Your task to perform on an android device: Go to Wikipedia Image 0: 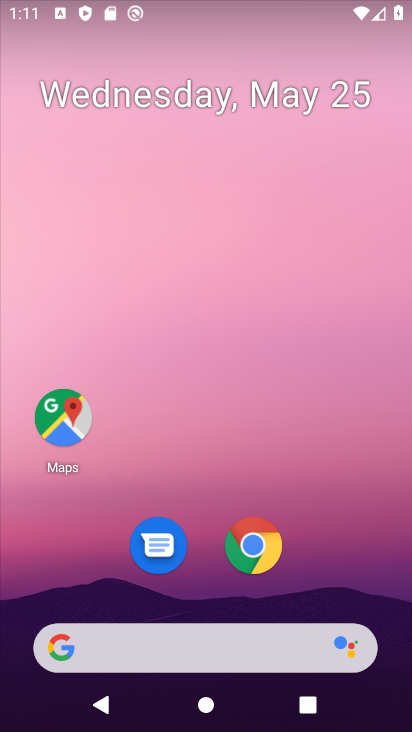
Step 0: drag from (406, 513) to (275, 99)
Your task to perform on an android device: Go to Wikipedia Image 1: 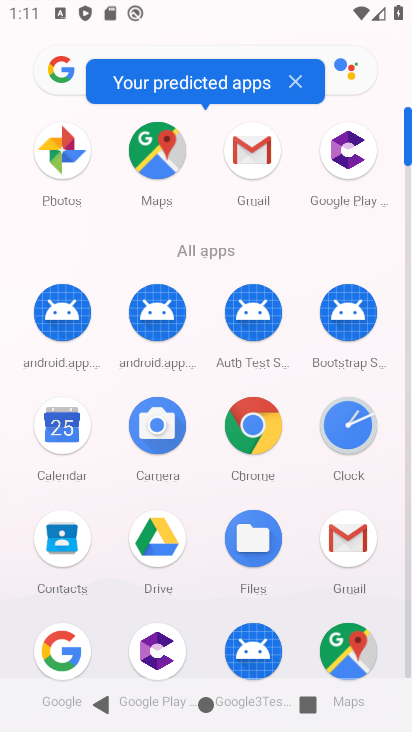
Step 1: click (214, 49)
Your task to perform on an android device: Go to Wikipedia Image 2: 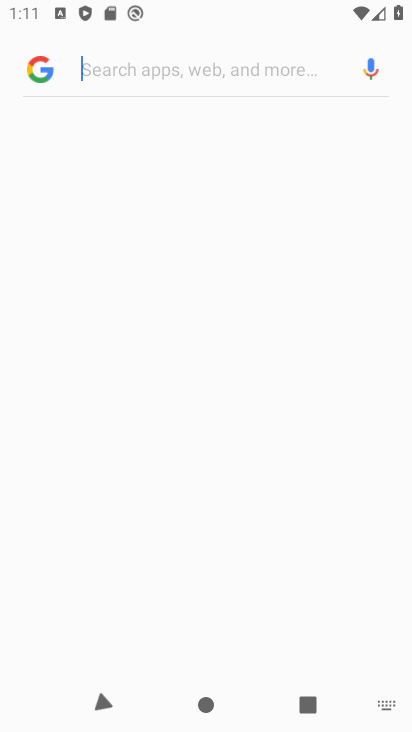
Step 2: click (219, 70)
Your task to perform on an android device: Go to Wikipedia Image 3: 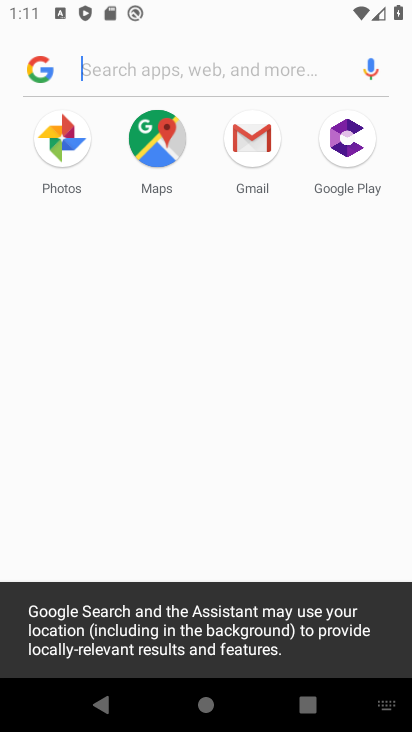
Step 3: click (219, 70)
Your task to perform on an android device: Go to Wikipedia Image 4: 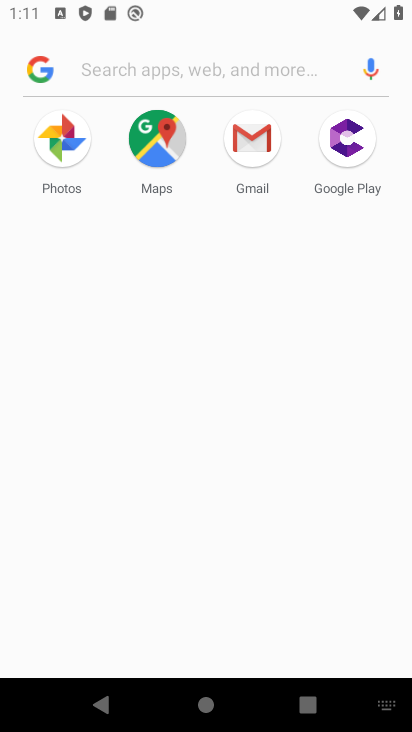
Step 4: task complete